Your task to perform on an android device: Open the map Image 0: 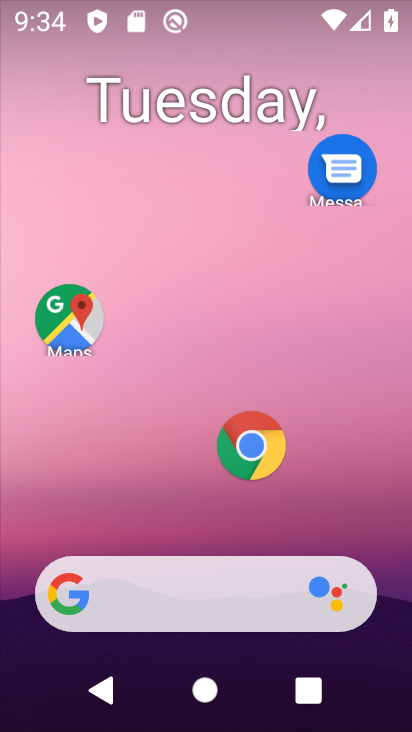
Step 0: click (84, 334)
Your task to perform on an android device: Open the map Image 1: 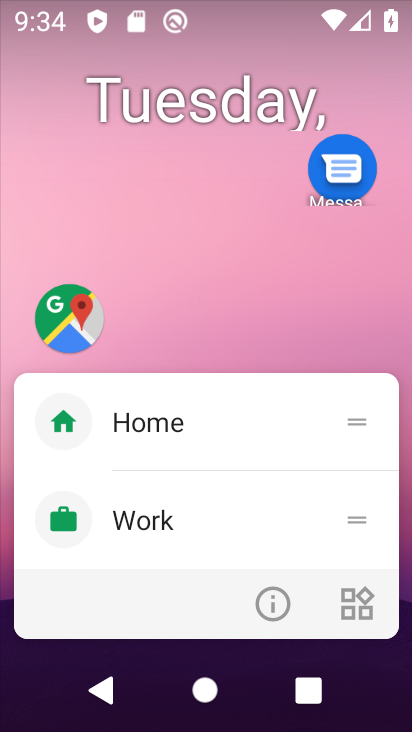
Step 1: click (86, 326)
Your task to perform on an android device: Open the map Image 2: 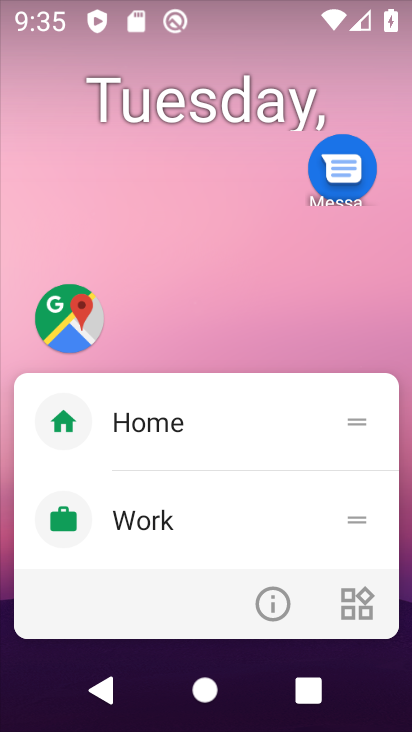
Step 2: click (72, 318)
Your task to perform on an android device: Open the map Image 3: 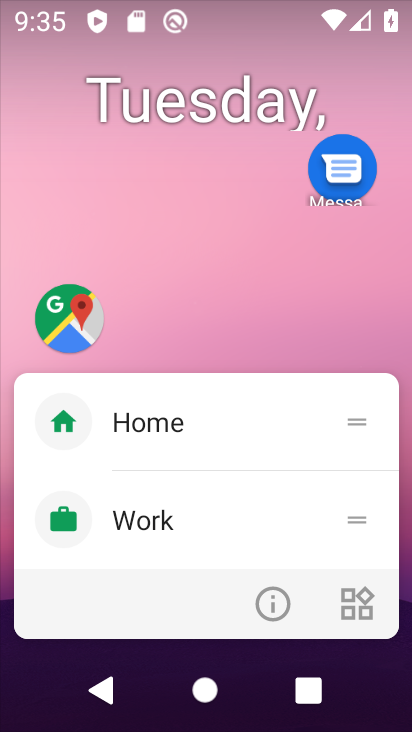
Step 3: click (72, 316)
Your task to perform on an android device: Open the map Image 4: 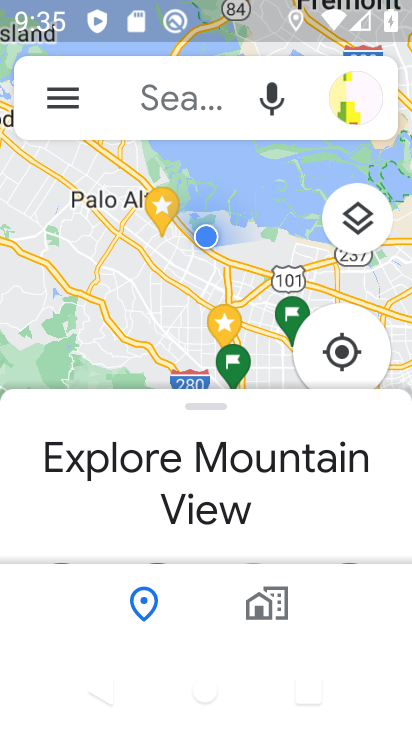
Step 4: press back button
Your task to perform on an android device: Open the map Image 5: 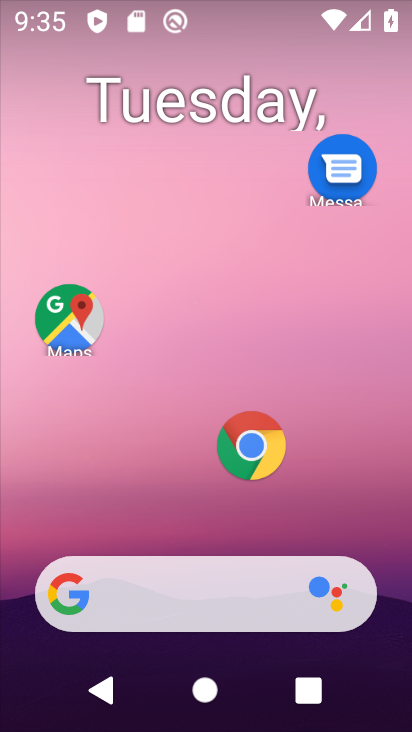
Step 5: click (62, 297)
Your task to perform on an android device: Open the map Image 6: 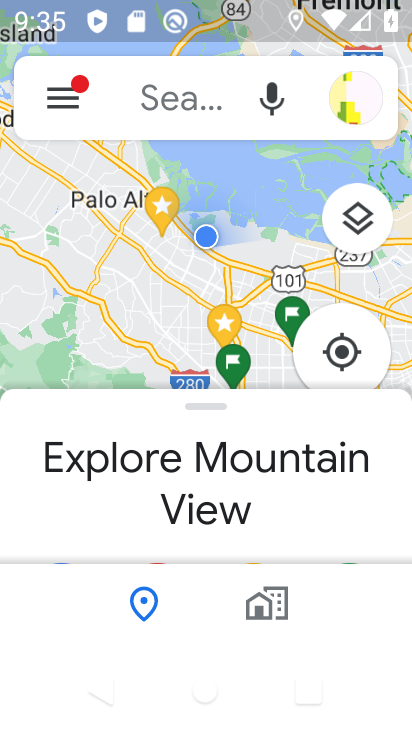
Step 6: task complete